Your task to perform on an android device: turn off smart reply in the gmail app Image 0: 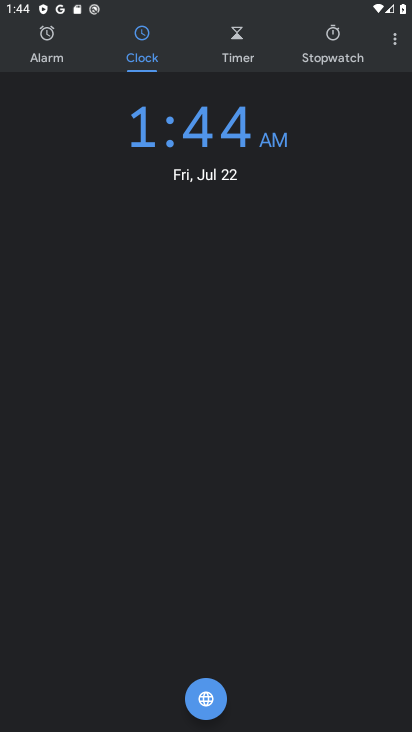
Step 0: press home button
Your task to perform on an android device: turn off smart reply in the gmail app Image 1: 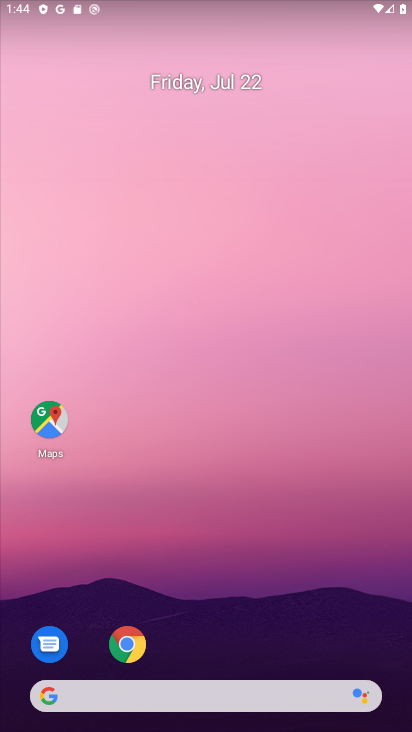
Step 1: drag from (297, 649) to (155, 256)
Your task to perform on an android device: turn off smart reply in the gmail app Image 2: 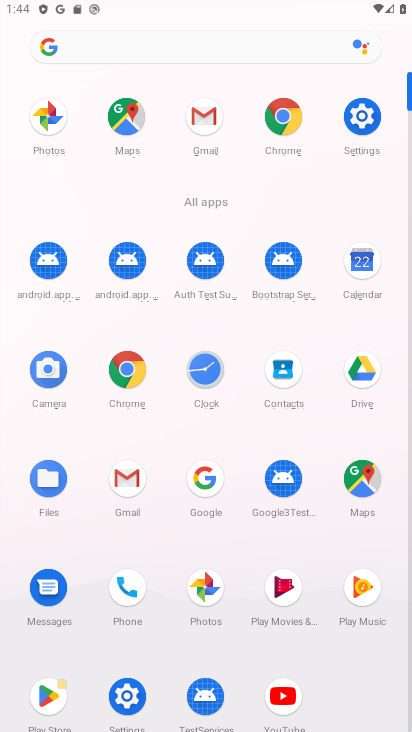
Step 2: click (190, 124)
Your task to perform on an android device: turn off smart reply in the gmail app Image 3: 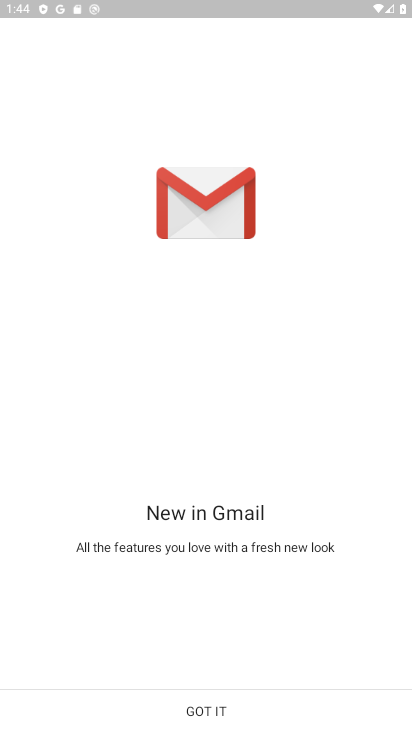
Step 3: click (249, 702)
Your task to perform on an android device: turn off smart reply in the gmail app Image 4: 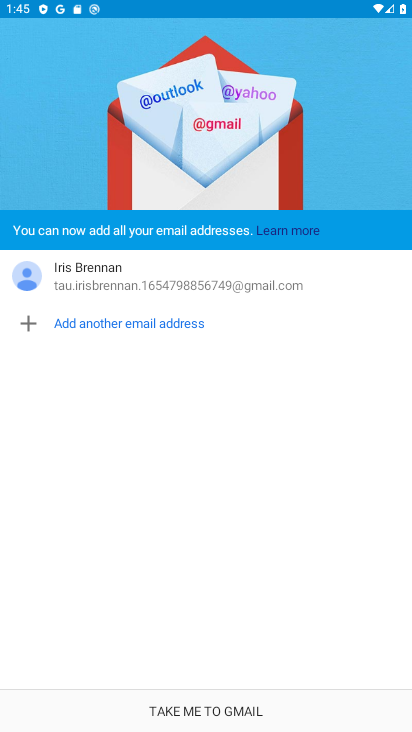
Step 4: click (239, 711)
Your task to perform on an android device: turn off smart reply in the gmail app Image 5: 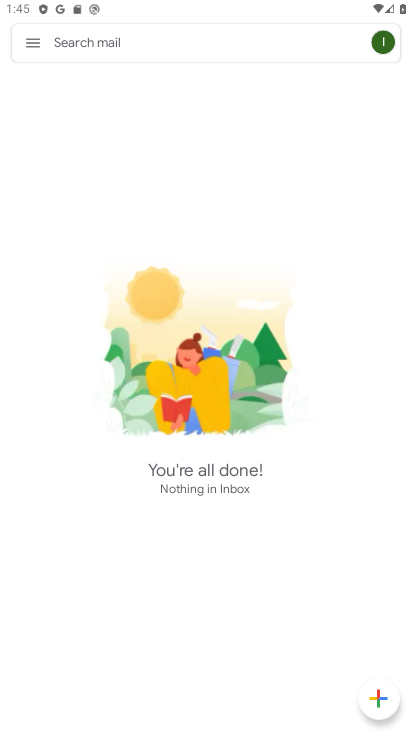
Step 5: click (35, 51)
Your task to perform on an android device: turn off smart reply in the gmail app Image 6: 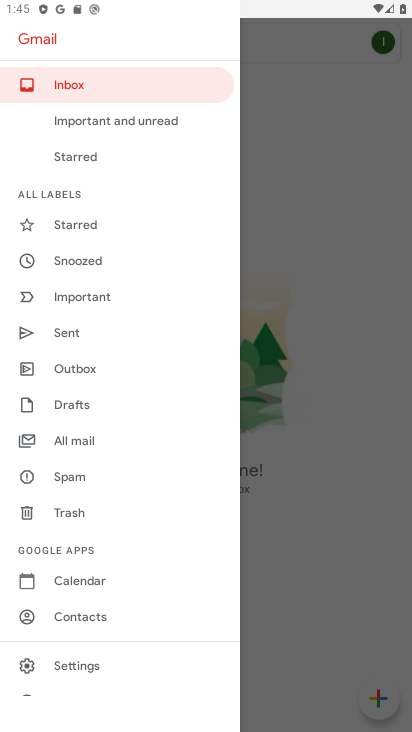
Step 6: click (155, 663)
Your task to perform on an android device: turn off smart reply in the gmail app Image 7: 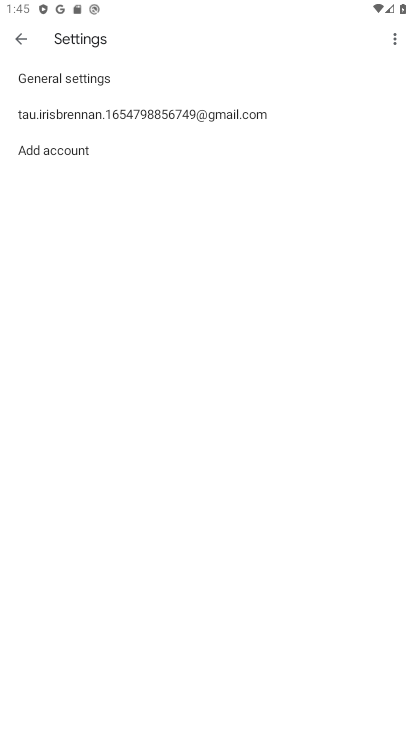
Step 7: click (251, 102)
Your task to perform on an android device: turn off smart reply in the gmail app Image 8: 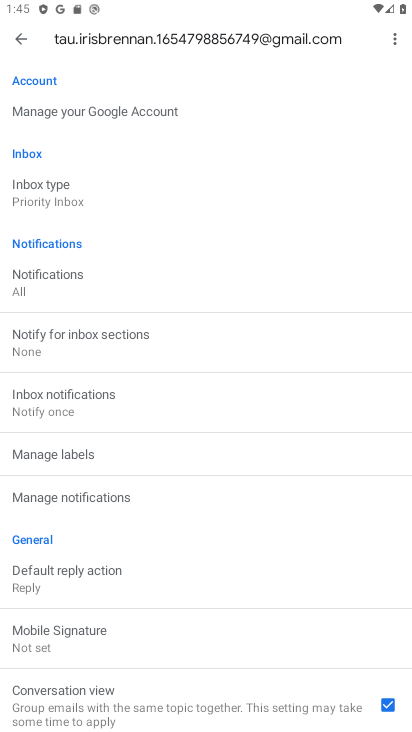
Step 8: drag from (210, 581) to (139, 191)
Your task to perform on an android device: turn off smart reply in the gmail app Image 9: 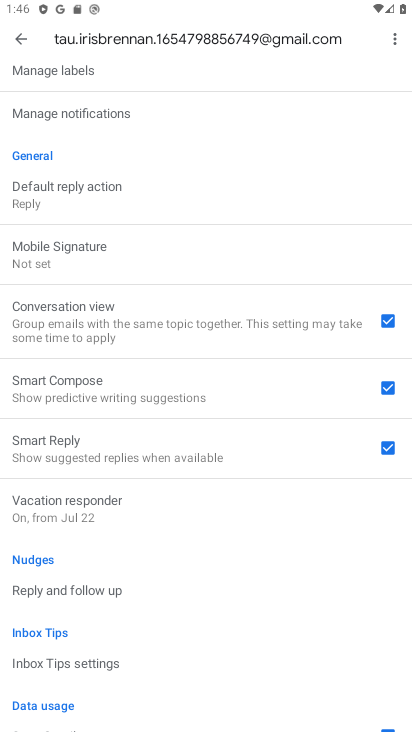
Step 9: click (378, 461)
Your task to perform on an android device: turn off smart reply in the gmail app Image 10: 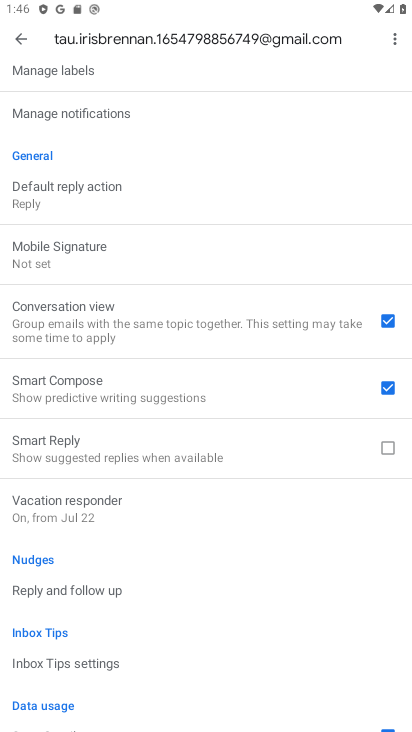
Step 10: task complete